Your task to perform on an android device: turn off notifications in google photos Image 0: 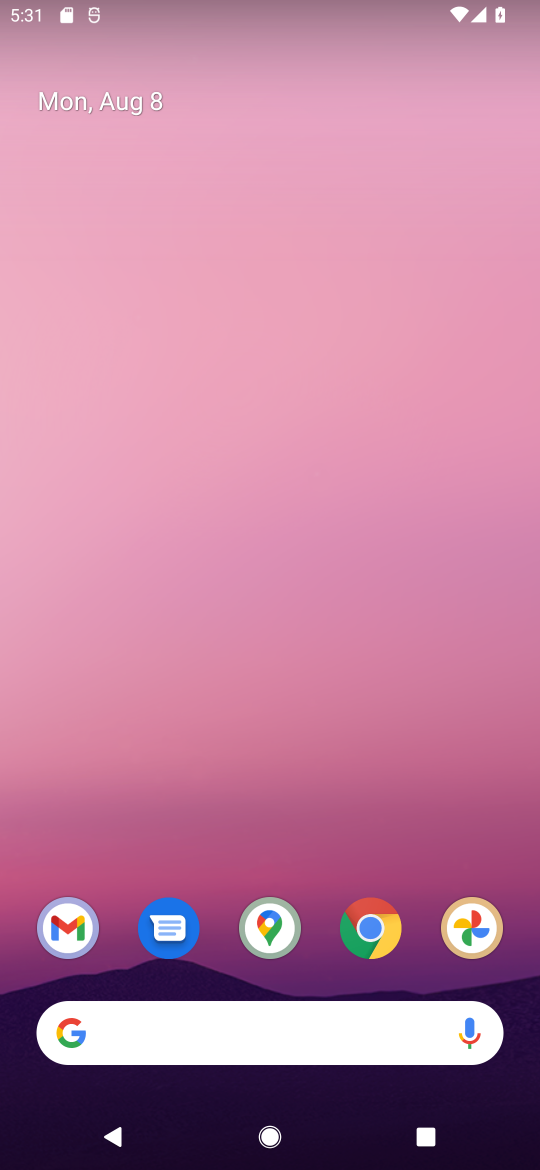
Step 0: click (466, 919)
Your task to perform on an android device: turn off notifications in google photos Image 1: 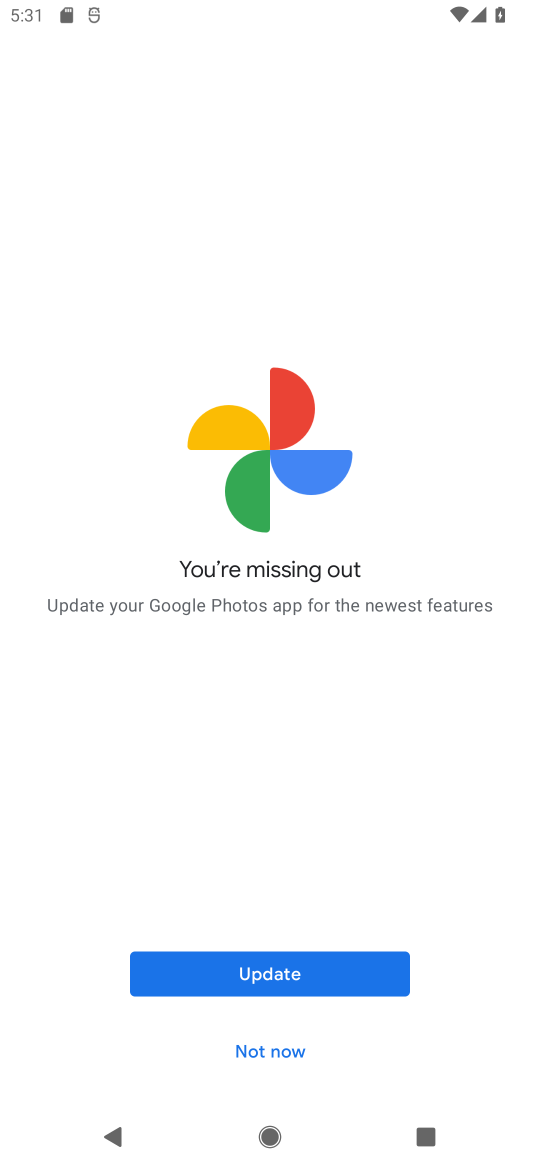
Step 1: click (273, 1055)
Your task to perform on an android device: turn off notifications in google photos Image 2: 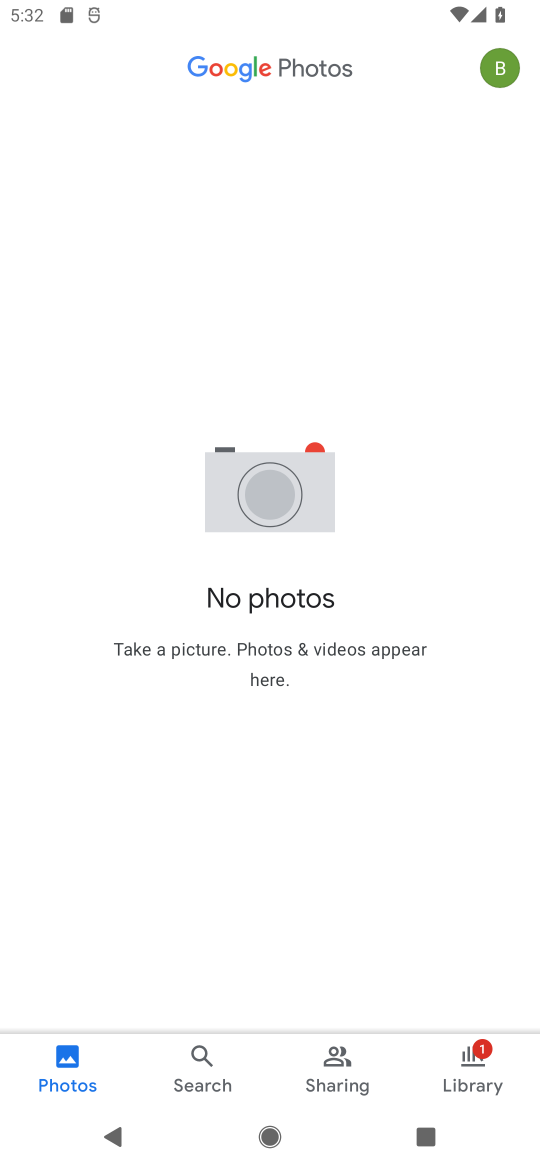
Step 2: click (504, 62)
Your task to perform on an android device: turn off notifications in google photos Image 3: 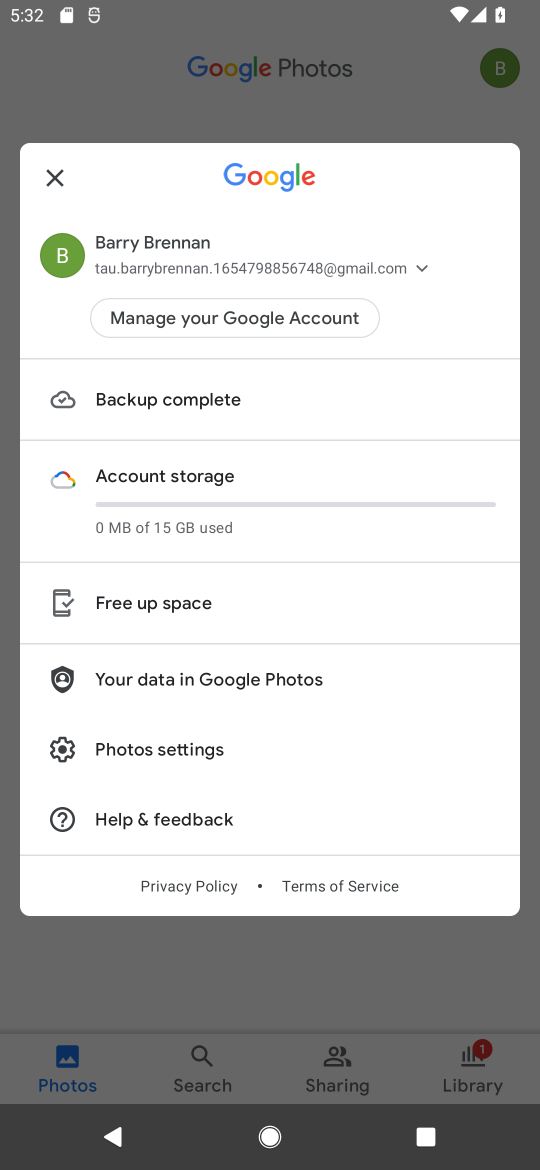
Step 3: click (165, 752)
Your task to perform on an android device: turn off notifications in google photos Image 4: 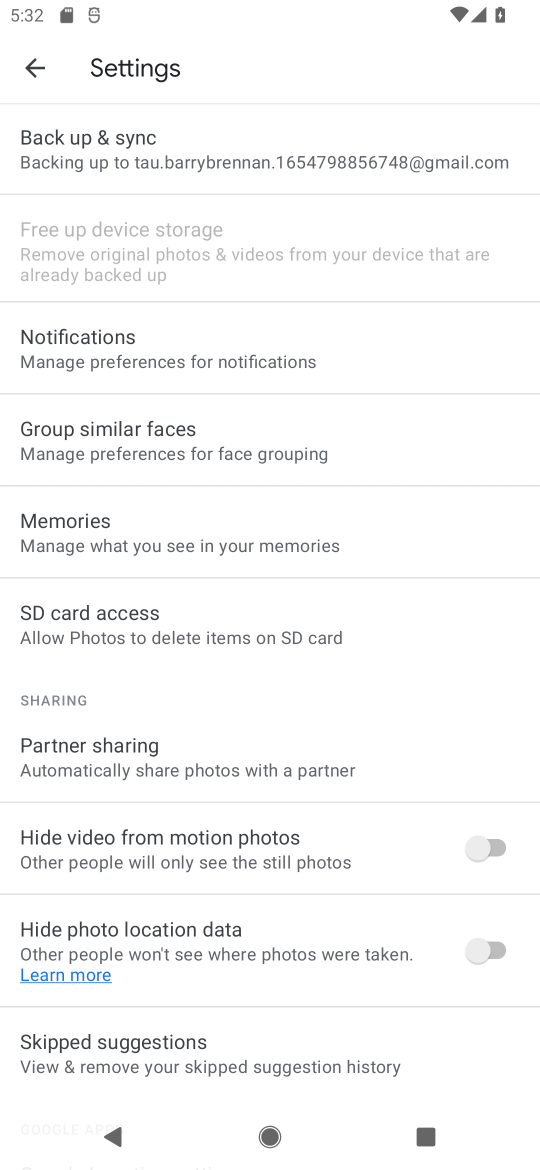
Step 4: click (142, 354)
Your task to perform on an android device: turn off notifications in google photos Image 5: 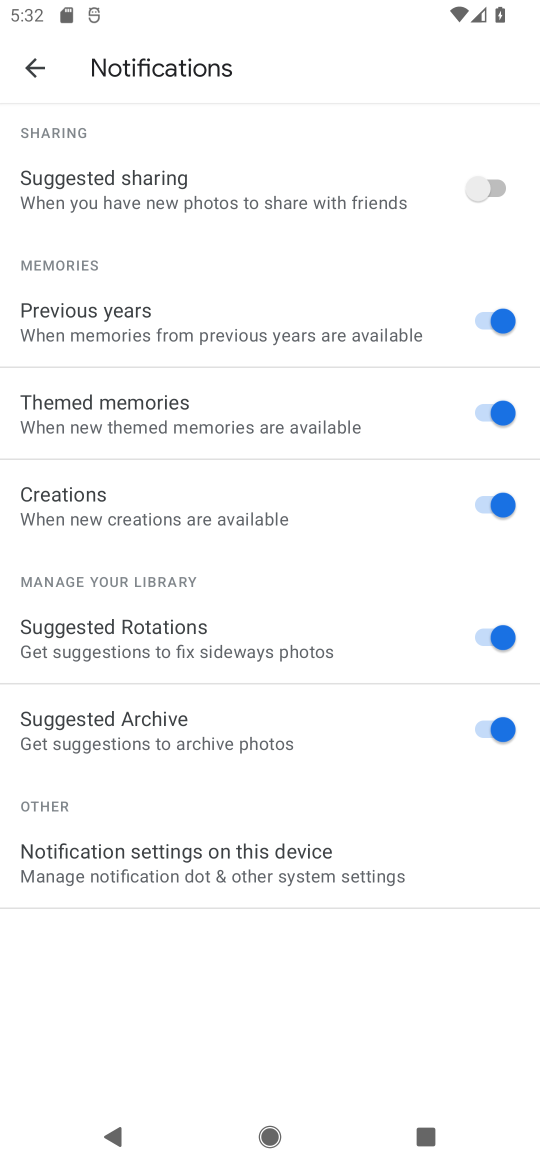
Step 5: click (159, 854)
Your task to perform on an android device: turn off notifications in google photos Image 6: 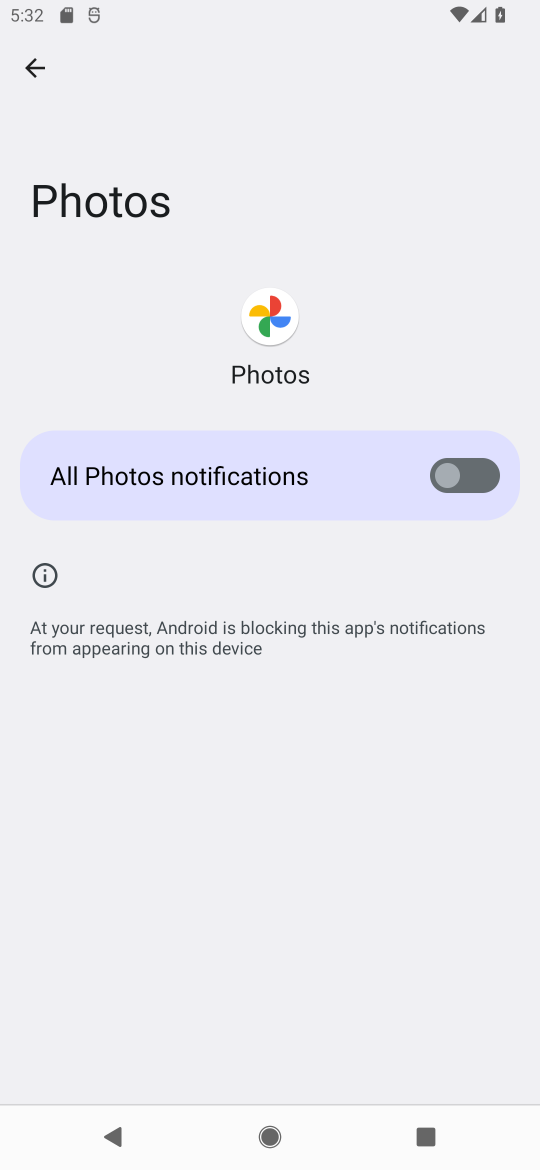
Step 6: task complete